Your task to perform on an android device: turn off airplane mode Image 0: 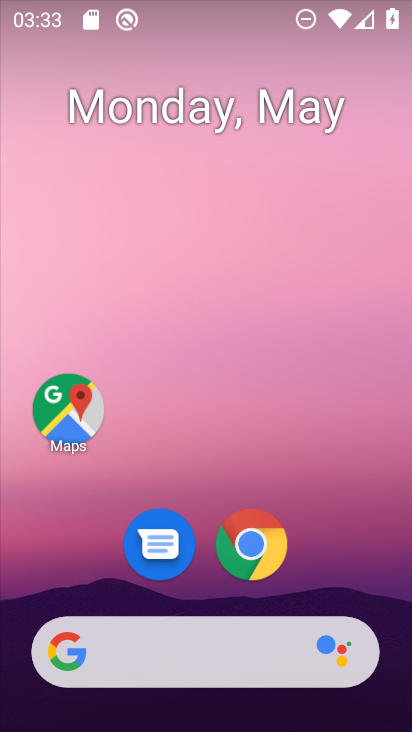
Step 0: drag from (349, 570) to (366, 248)
Your task to perform on an android device: turn off airplane mode Image 1: 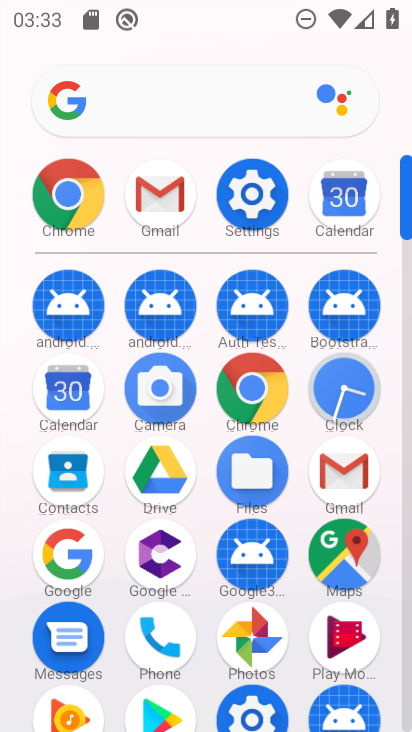
Step 1: click (265, 214)
Your task to perform on an android device: turn off airplane mode Image 2: 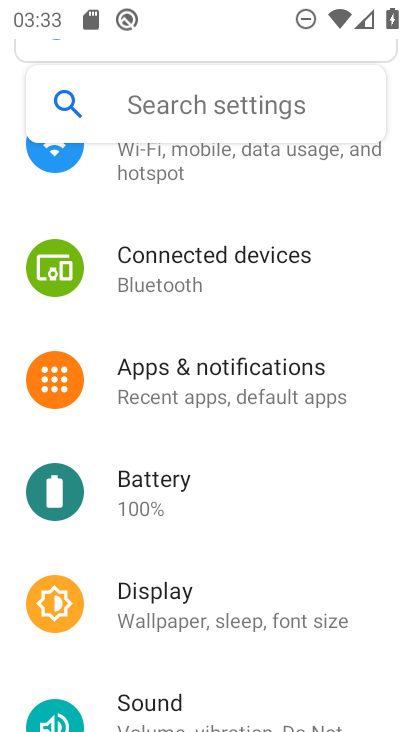
Step 2: drag from (348, 322) to (354, 396)
Your task to perform on an android device: turn off airplane mode Image 3: 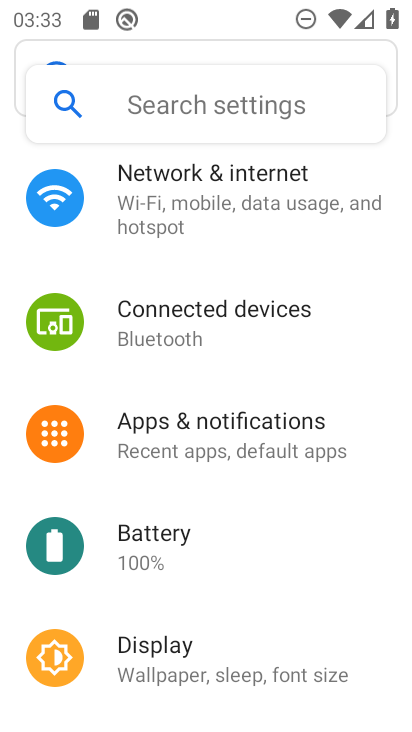
Step 3: drag from (345, 296) to (348, 388)
Your task to perform on an android device: turn off airplane mode Image 4: 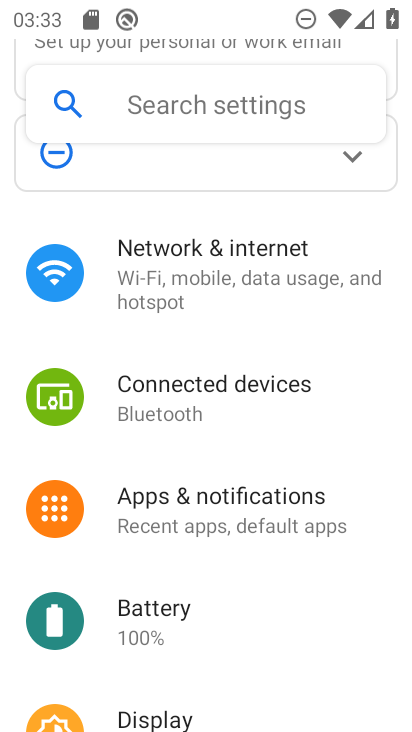
Step 4: drag from (353, 231) to (347, 424)
Your task to perform on an android device: turn off airplane mode Image 5: 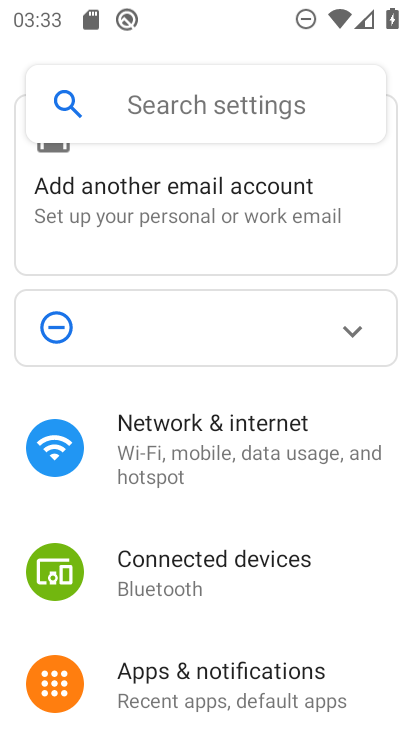
Step 5: click (312, 429)
Your task to perform on an android device: turn off airplane mode Image 6: 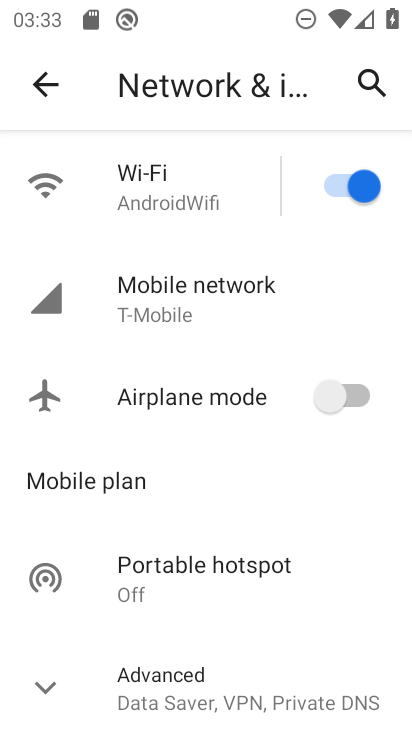
Step 6: task complete